Your task to perform on an android device: Open Google Chrome and open the bookmarks view Image 0: 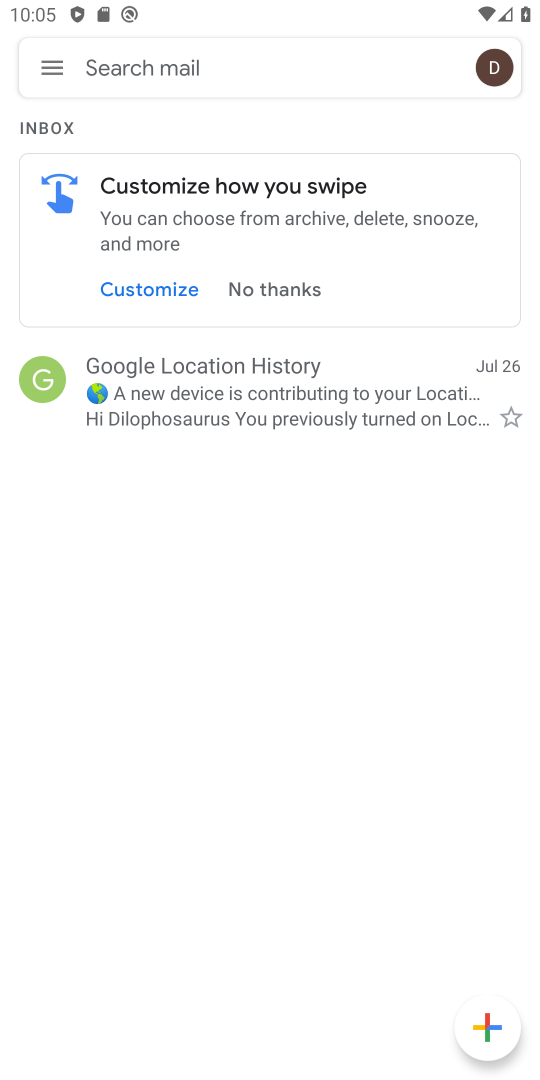
Step 0: press home button
Your task to perform on an android device: Open Google Chrome and open the bookmarks view Image 1: 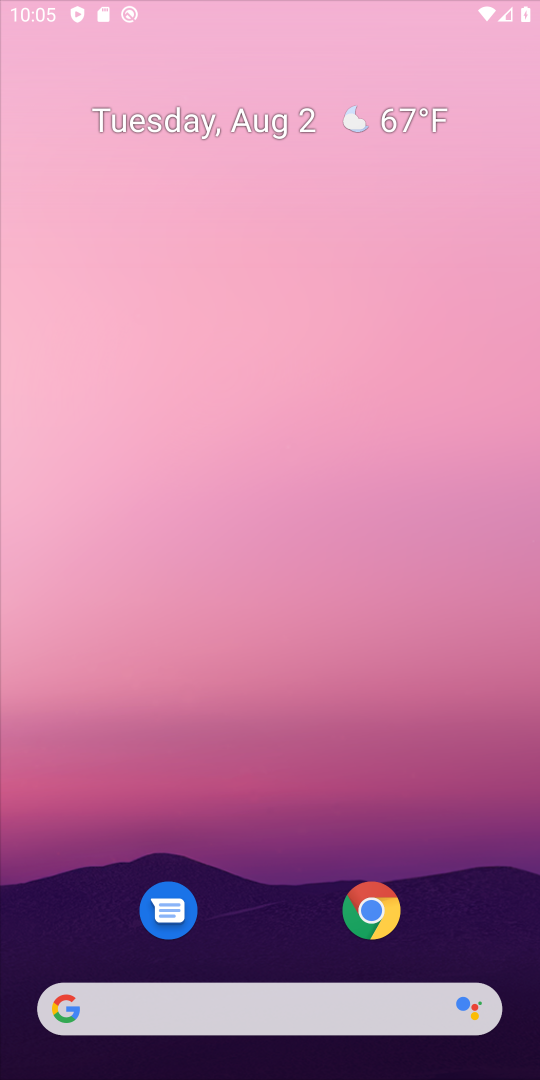
Step 1: drag from (237, 1016) to (282, 388)
Your task to perform on an android device: Open Google Chrome and open the bookmarks view Image 2: 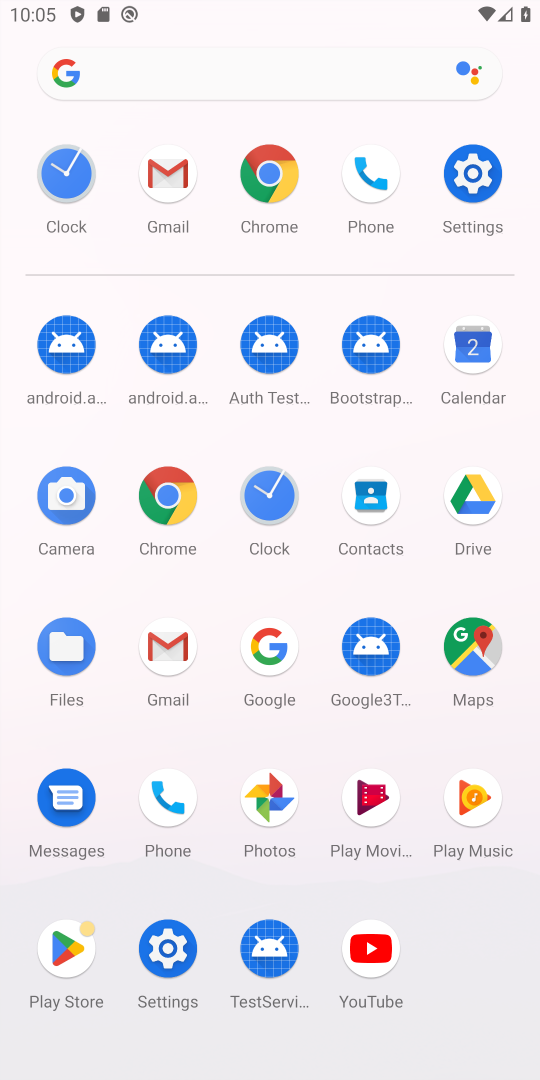
Step 2: click (260, 158)
Your task to perform on an android device: Open Google Chrome and open the bookmarks view Image 3: 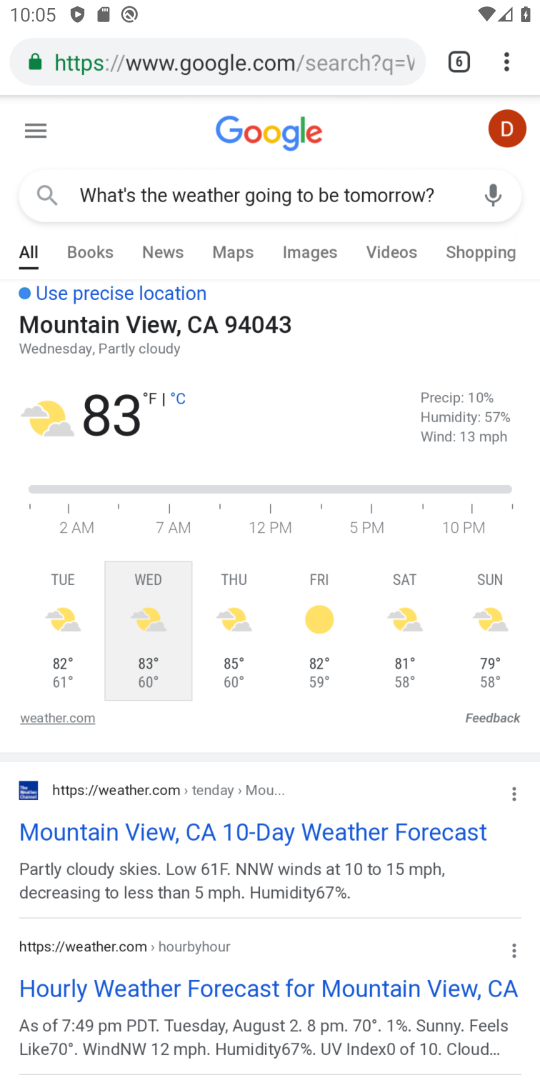
Step 3: click (502, 49)
Your task to perform on an android device: Open Google Chrome and open the bookmarks view Image 4: 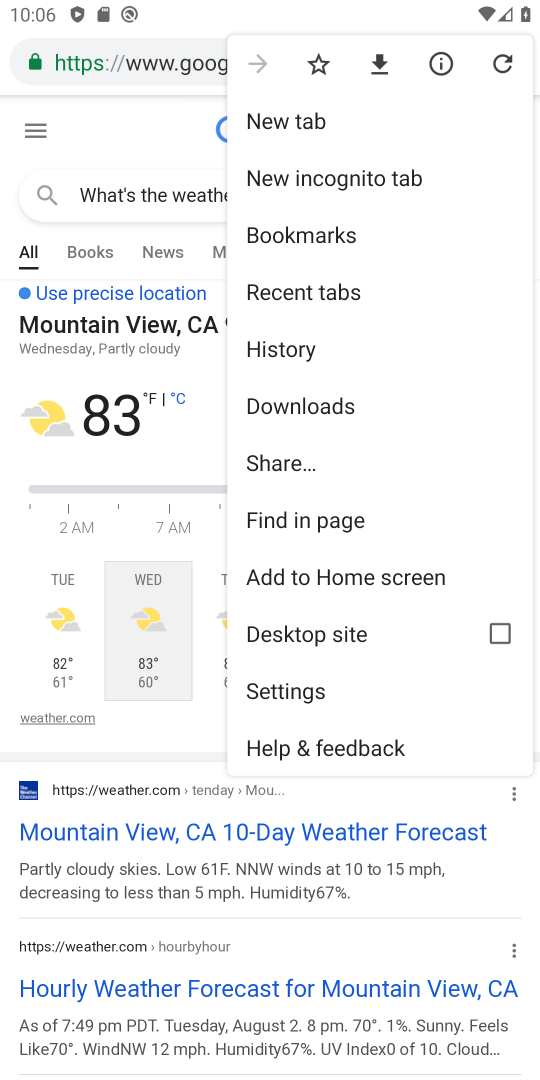
Step 4: click (310, 60)
Your task to perform on an android device: Open Google Chrome and open the bookmarks view Image 5: 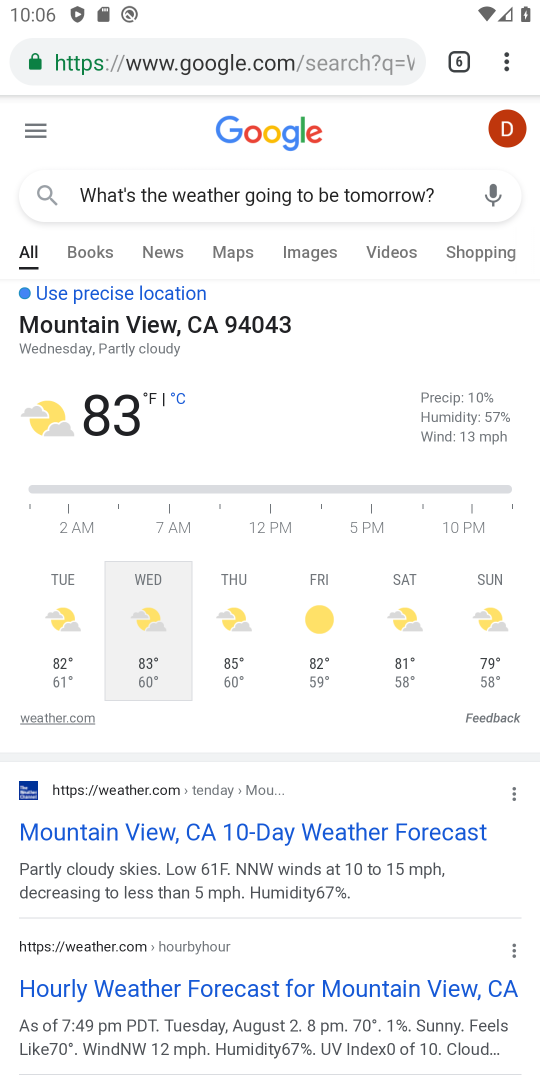
Step 5: click (509, 56)
Your task to perform on an android device: Open Google Chrome and open the bookmarks view Image 6: 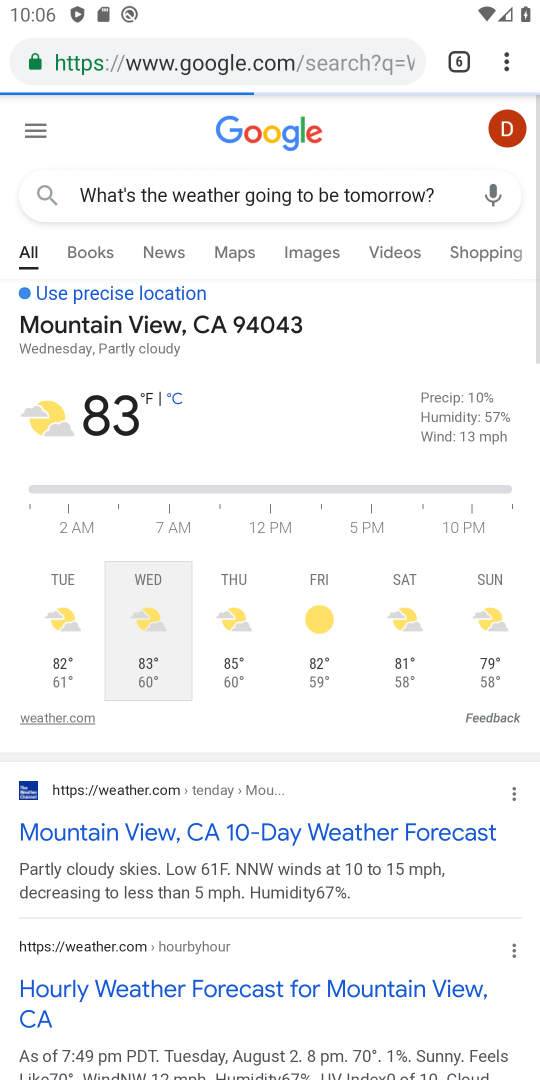
Step 6: click (497, 66)
Your task to perform on an android device: Open Google Chrome and open the bookmarks view Image 7: 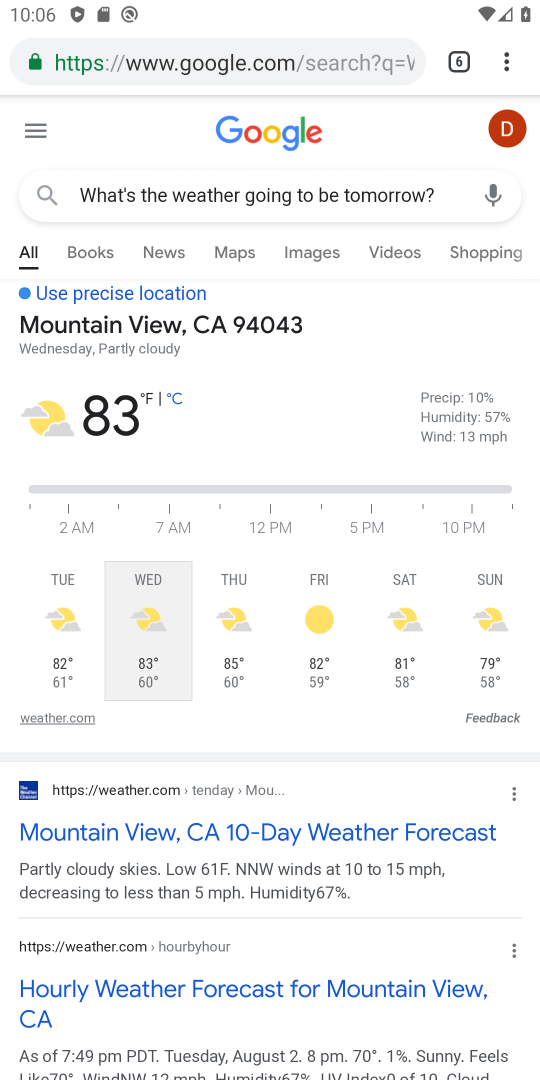
Step 7: click (510, 45)
Your task to perform on an android device: Open Google Chrome and open the bookmarks view Image 8: 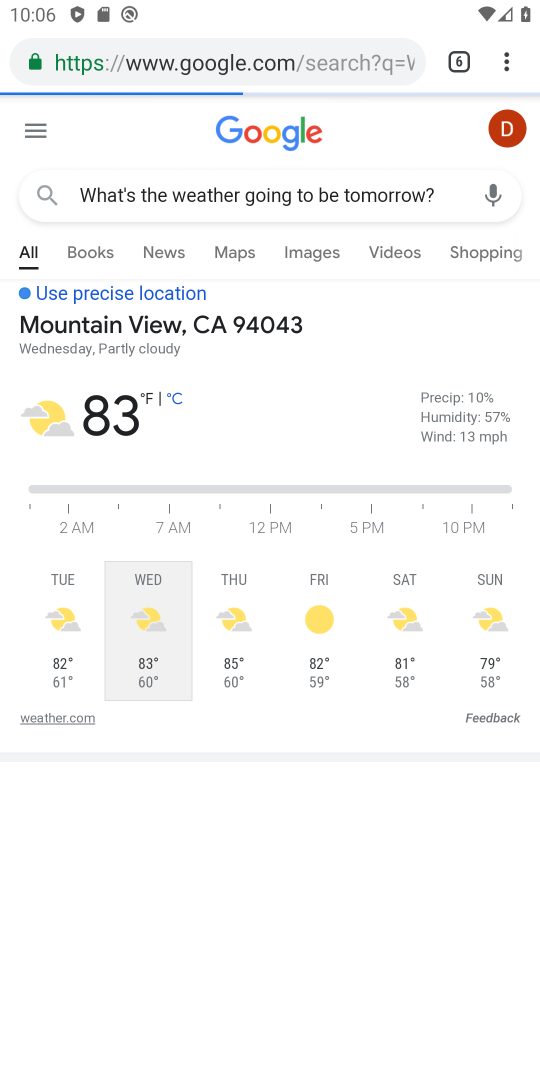
Step 8: click (510, 45)
Your task to perform on an android device: Open Google Chrome and open the bookmarks view Image 9: 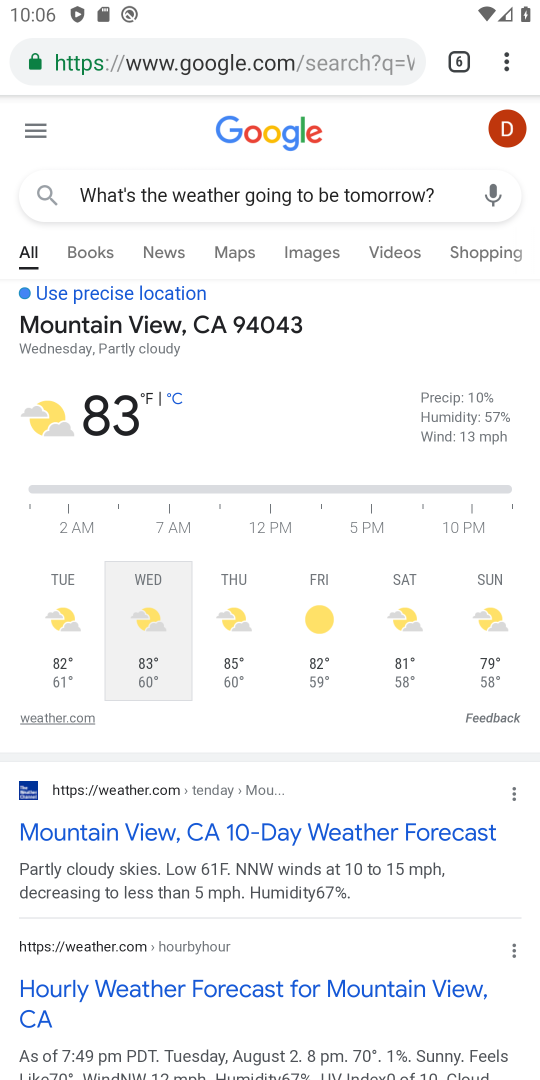
Step 9: click (511, 55)
Your task to perform on an android device: Open Google Chrome and open the bookmarks view Image 10: 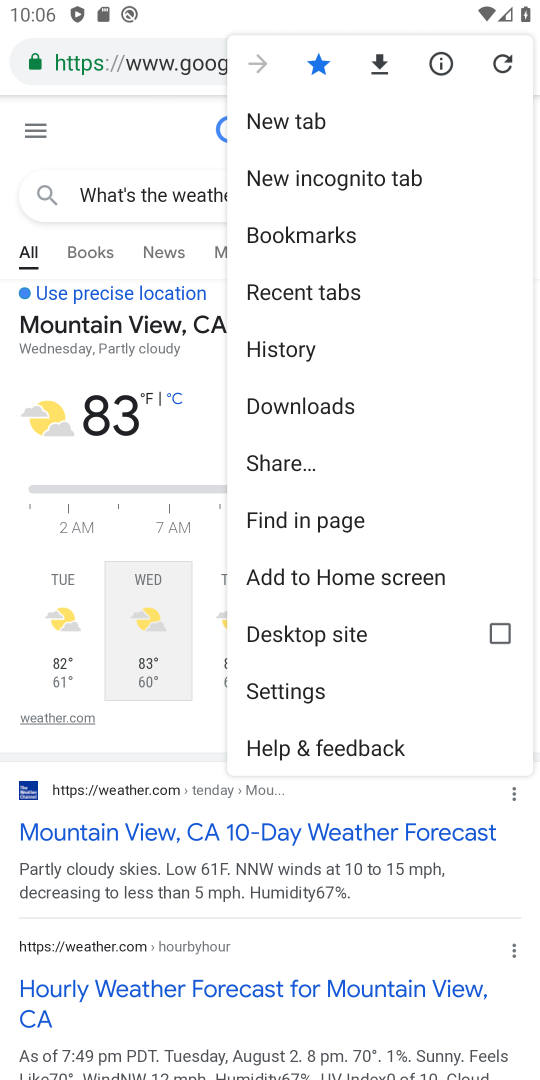
Step 10: click (334, 258)
Your task to perform on an android device: Open Google Chrome and open the bookmarks view Image 11: 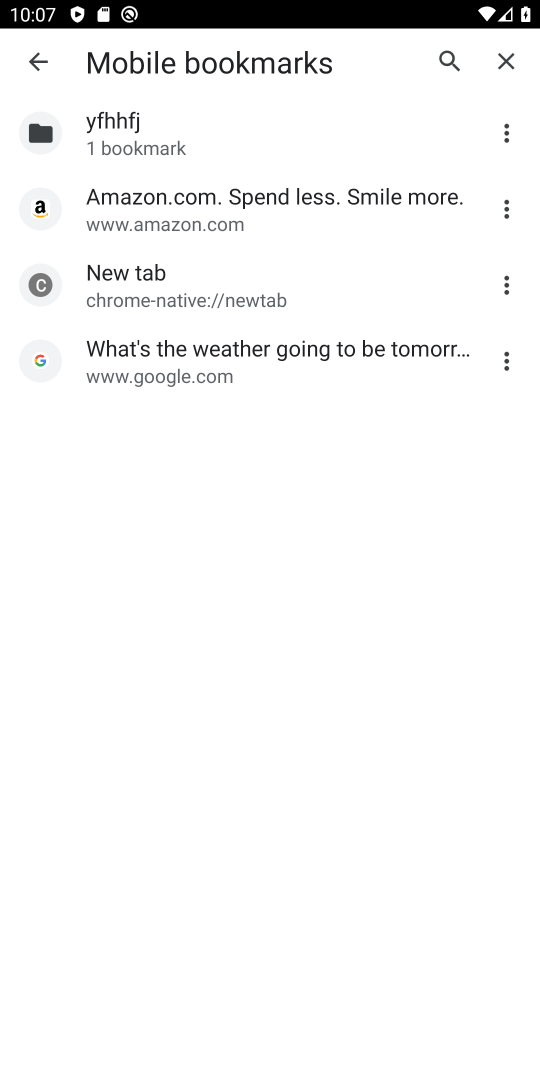
Step 11: task complete